Your task to perform on an android device: Go to privacy settings Image 0: 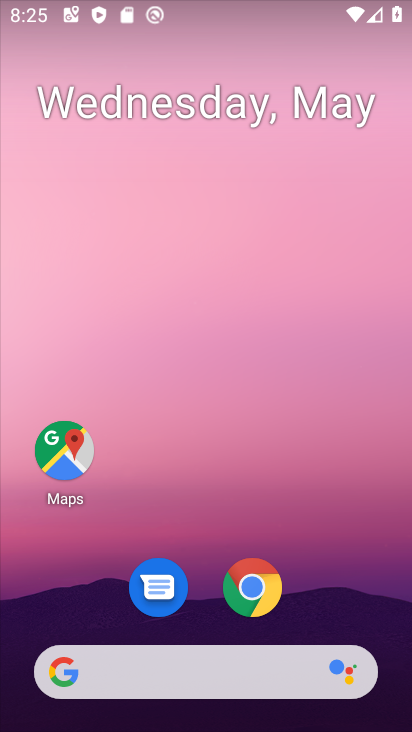
Step 0: drag from (359, 639) to (295, 102)
Your task to perform on an android device: Go to privacy settings Image 1: 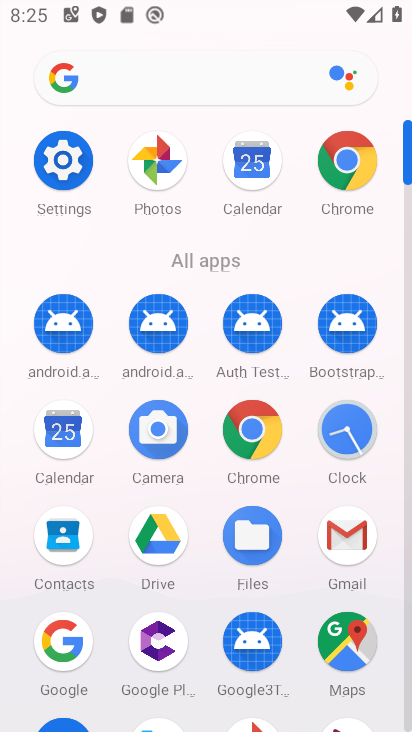
Step 1: click (409, 694)
Your task to perform on an android device: Go to privacy settings Image 2: 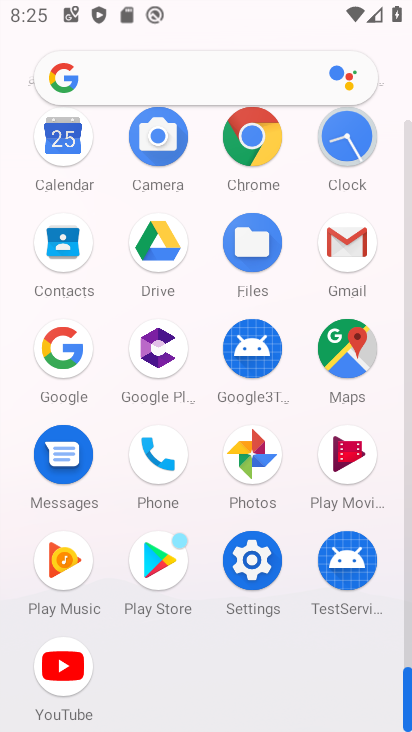
Step 2: click (254, 558)
Your task to perform on an android device: Go to privacy settings Image 3: 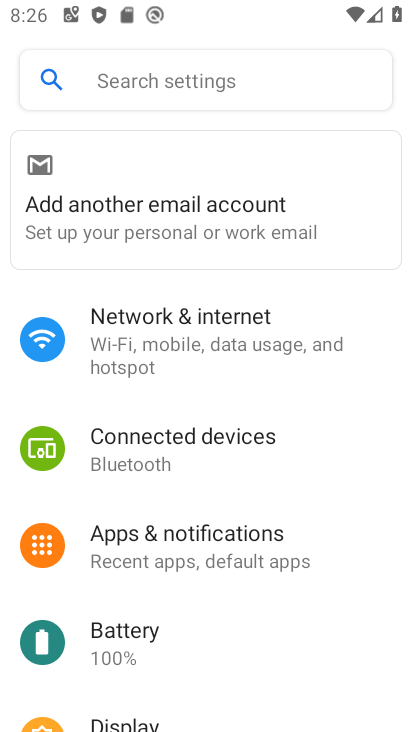
Step 3: drag from (313, 664) to (300, 204)
Your task to perform on an android device: Go to privacy settings Image 4: 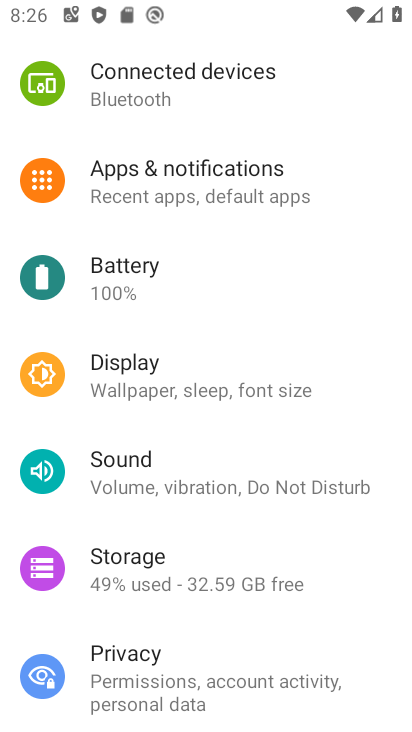
Step 4: drag from (263, 597) to (295, 179)
Your task to perform on an android device: Go to privacy settings Image 5: 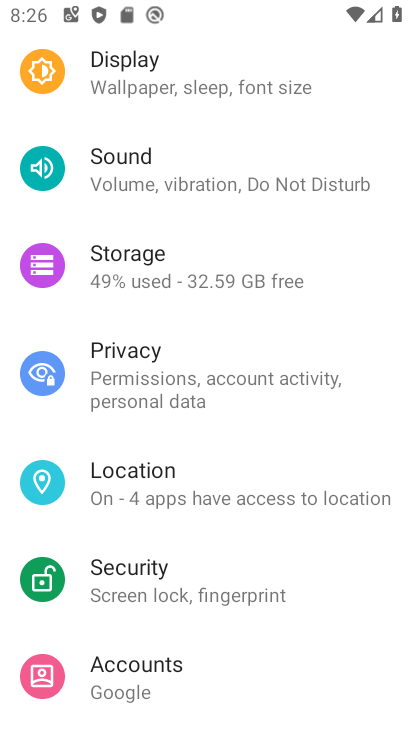
Step 5: drag from (260, 627) to (261, 568)
Your task to perform on an android device: Go to privacy settings Image 6: 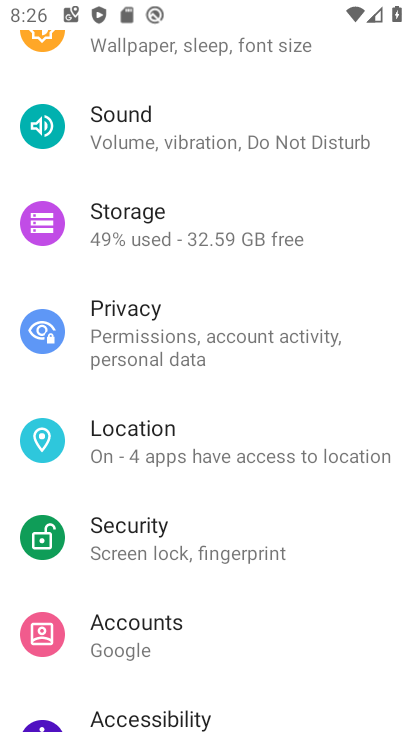
Step 6: click (123, 323)
Your task to perform on an android device: Go to privacy settings Image 7: 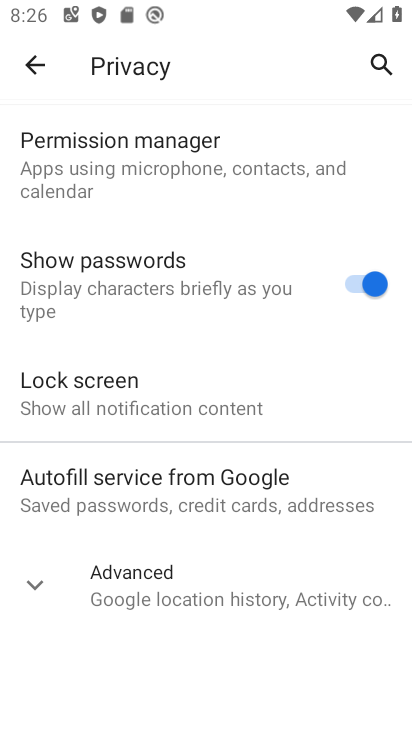
Step 7: click (39, 576)
Your task to perform on an android device: Go to privacy settings Image 8: 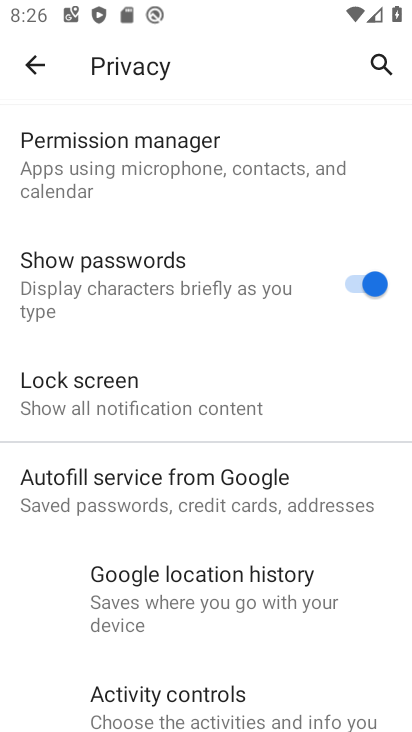
Step 8: task complete